Your task to perform on an android device: toggle notifications settings in the gmail app Image 0: 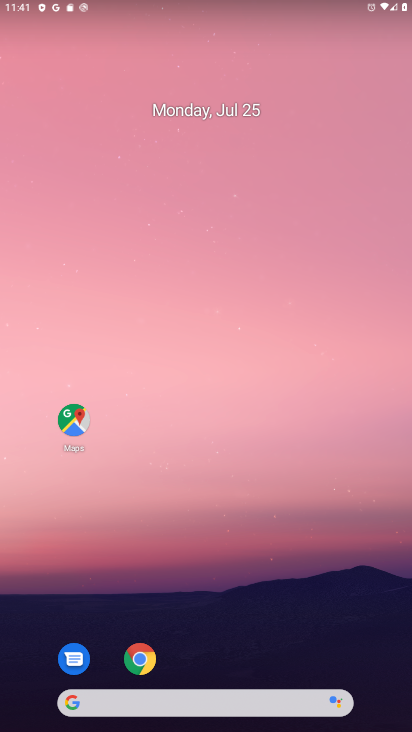
Step 0: drag from (248, 581) to (170, 25)
Your task to perform on an android device: toggle notifications settings in the gmail app Image 1: 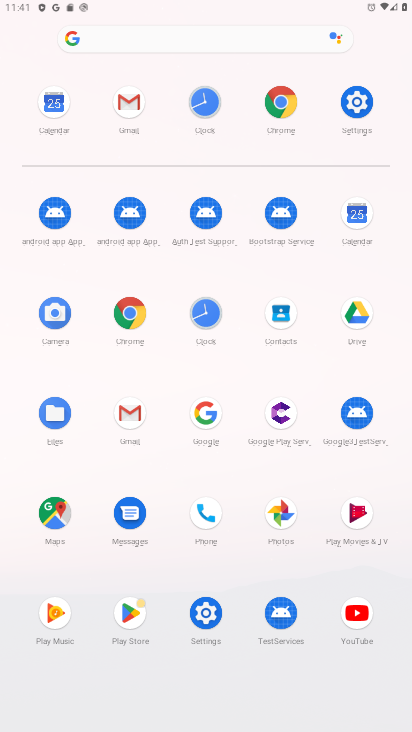
Step 1: click (132, 99)
Your task to perform on an android device: toggle notifications settings in the gmail app Image 2: 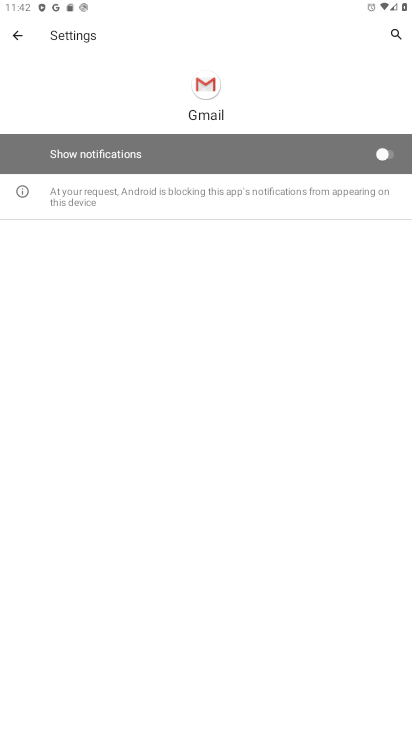
Step 2: click (384, 158)
Your task to perform on an android device: toggle notifications settings in the gmail app Image 3: 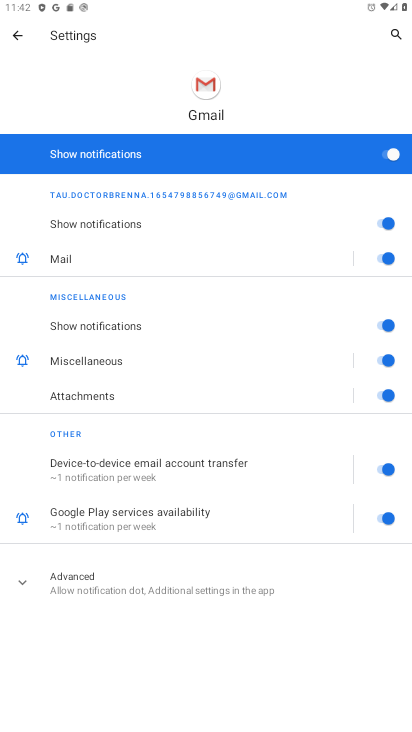
Step 3: task complete